Your task to perform on an android device: refresh tabs in the chrome app Image 0: 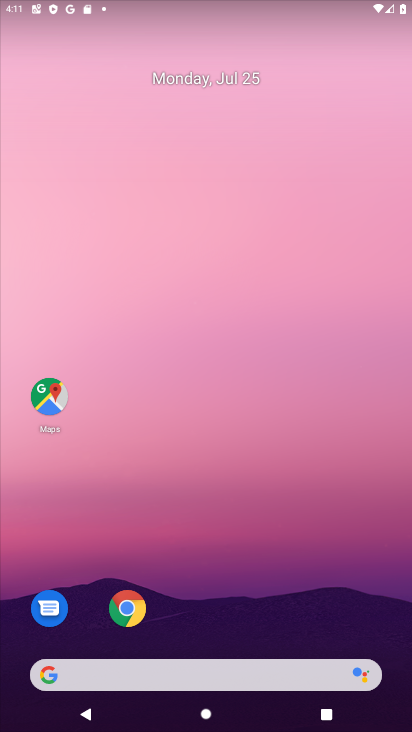
Step 0: click (129, 605)
Your task to perform on an android device: refresh tabs in the chrome app Image 1: 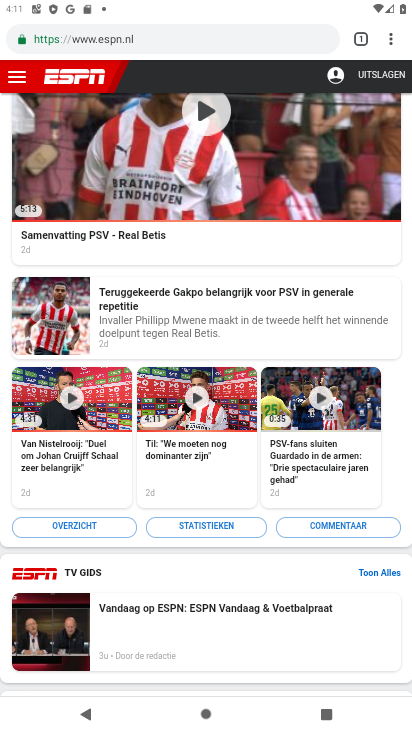
Step 1: click (390, 36)
Your task to perform on an android device: refresh tabs in the chrome app Image 2: 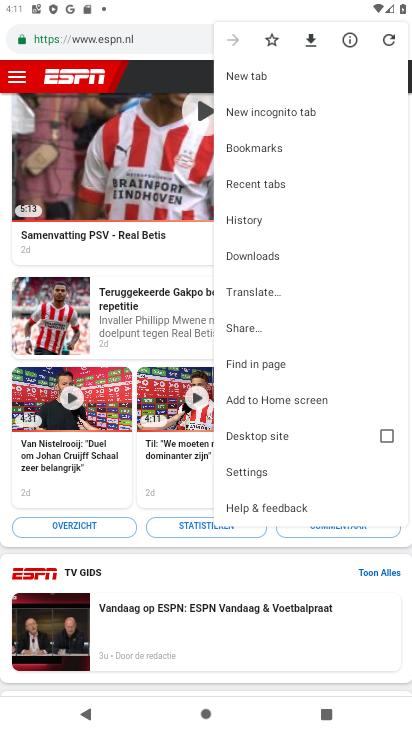
Step 2: click (388, 39)
Your task to perform on an android device: refresh tabs in the chrome app Image 3: 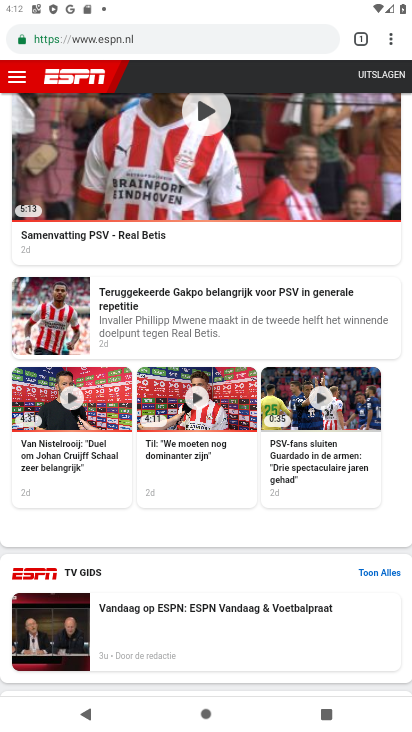
Step 3: task complete